Your task to perform on an android device: open app "McDonald's" Image 0: 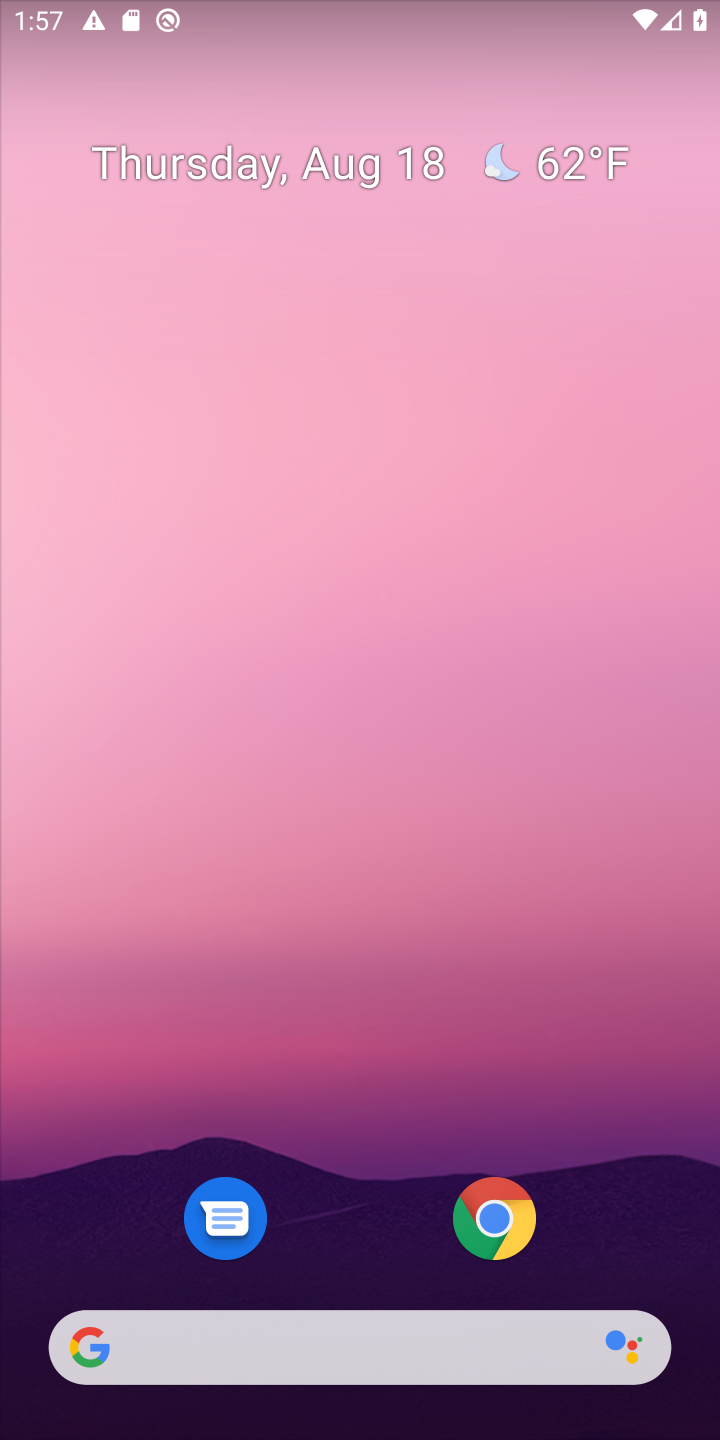
Step 0: drag from (364, 749) to (411, 361)
Your task to perform on an android device: open app "McDonald's" Image 1: 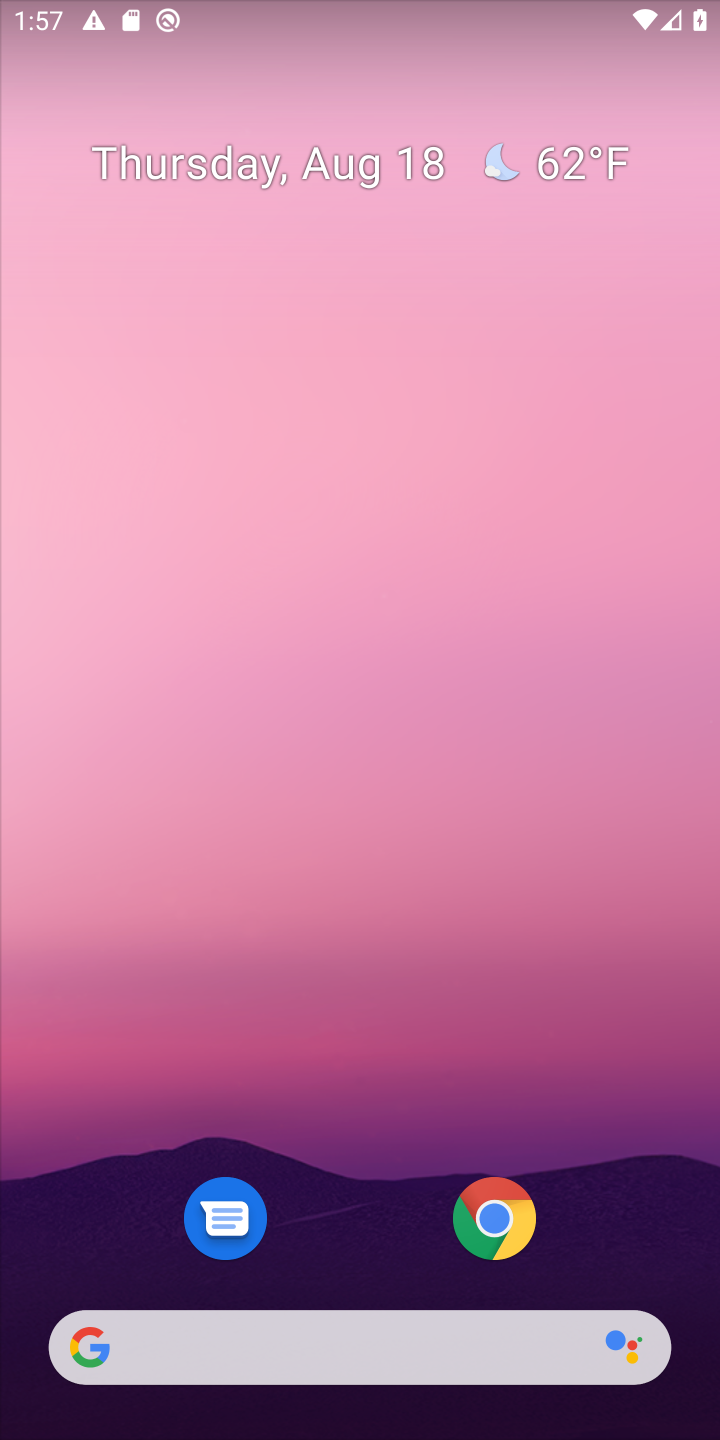
Step 1: drag from (347, 1188) to (377, 295)
Your task to perform on an android device: open app "McDonald's" Image 2: 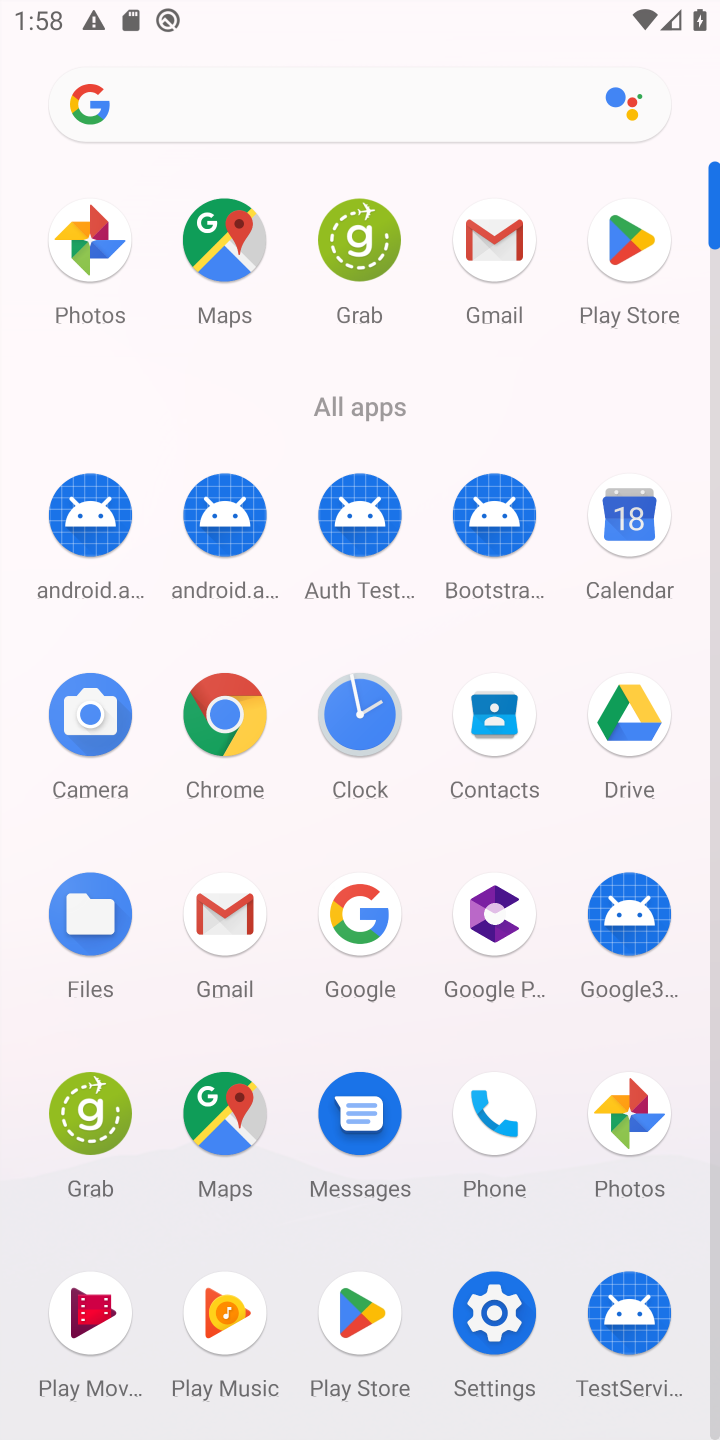
Step 2: click (630, 277)
Your task to perform on an android device: open app "McDonald's" Image 3: 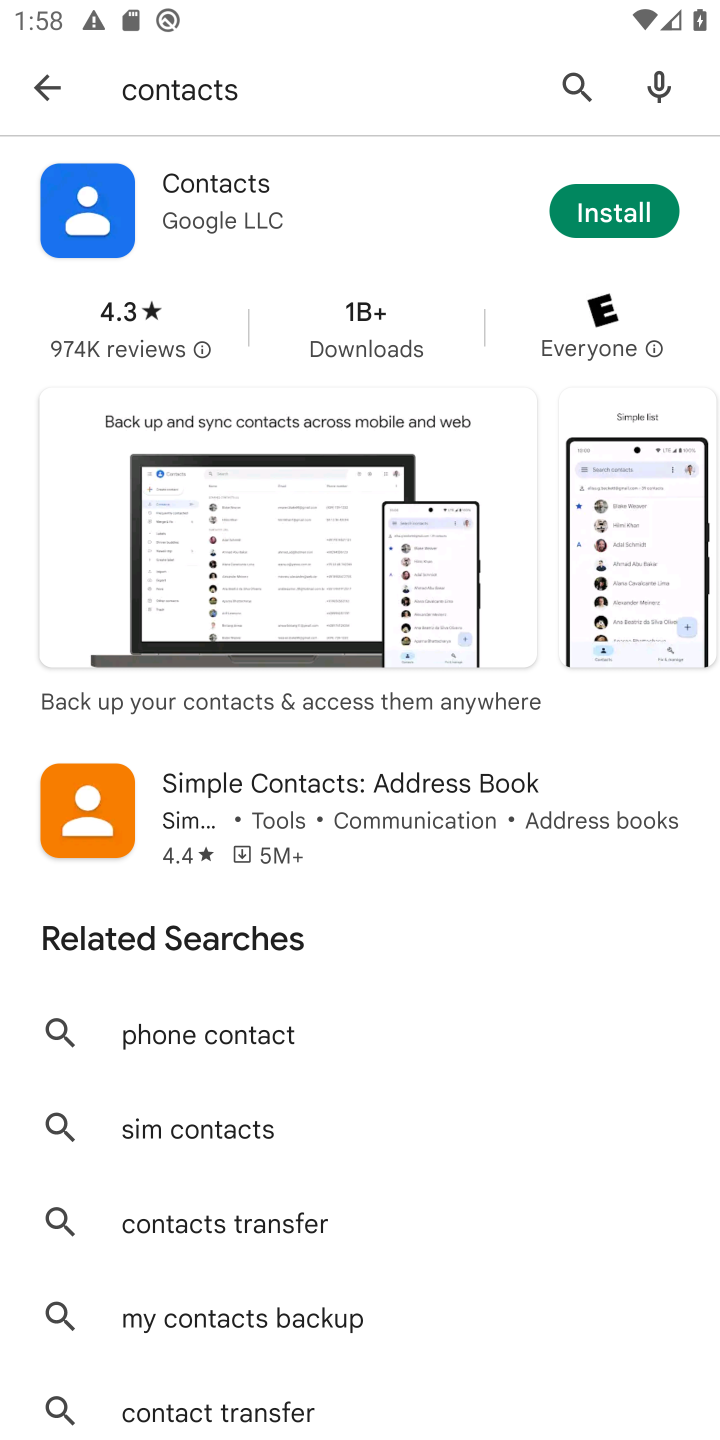
Step 3: click (582, 104)
Your task to perform on an android device: open app "McDonald's" Image 4: 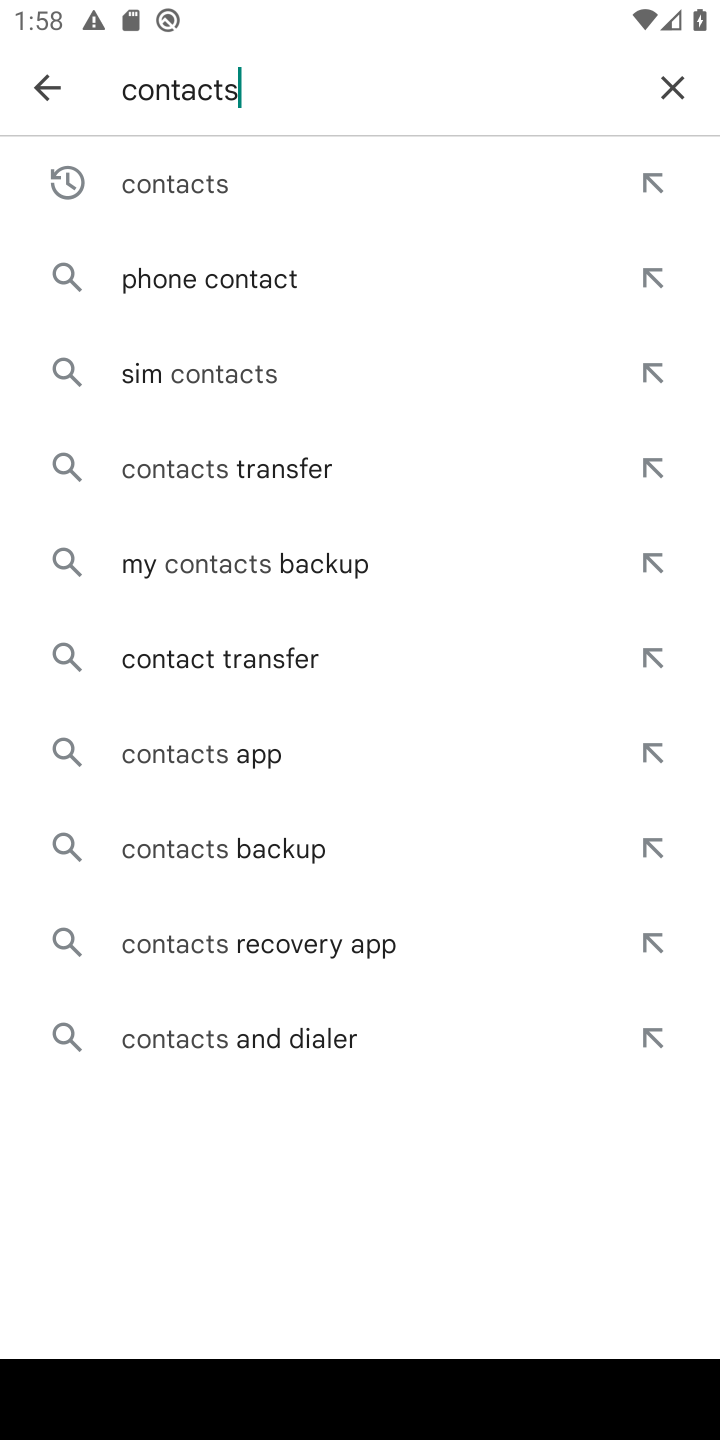
Step 4: click (659, 85)
Your task to perform on an android device: open app "McDonald's" Image 5: 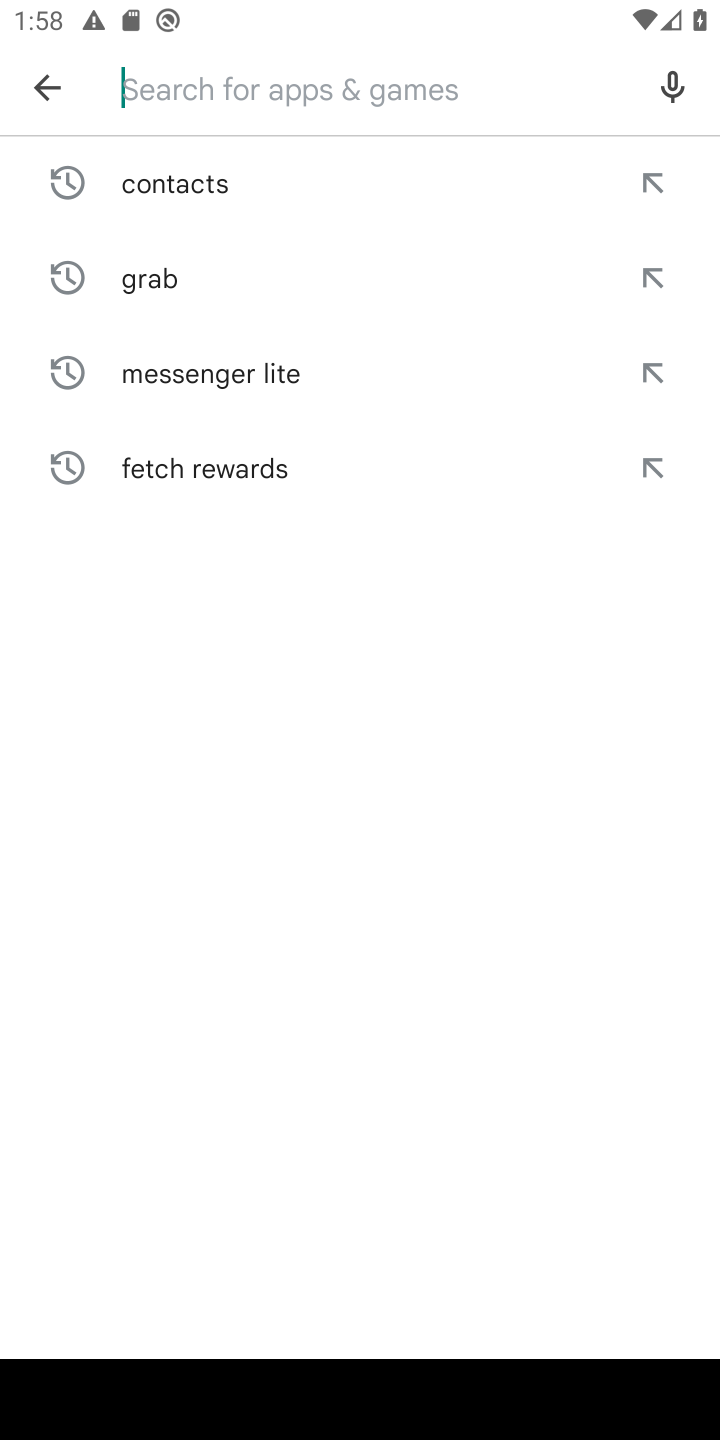
Step 5: type "McDonald's"
Your task to perform on an android device: open app "McDonald's" Image 6: 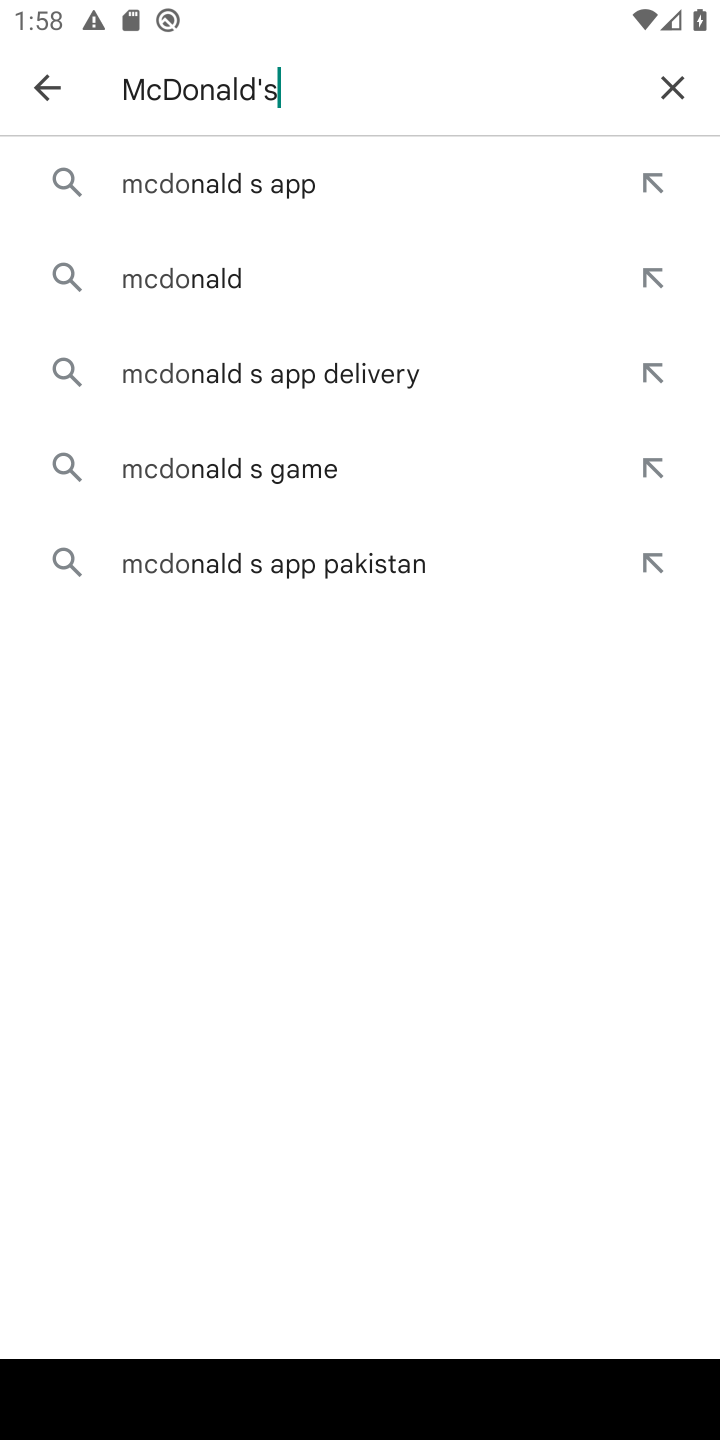
Step 6: type ""
Your task to perform on an android device: open app "McDonald's" Image 7: 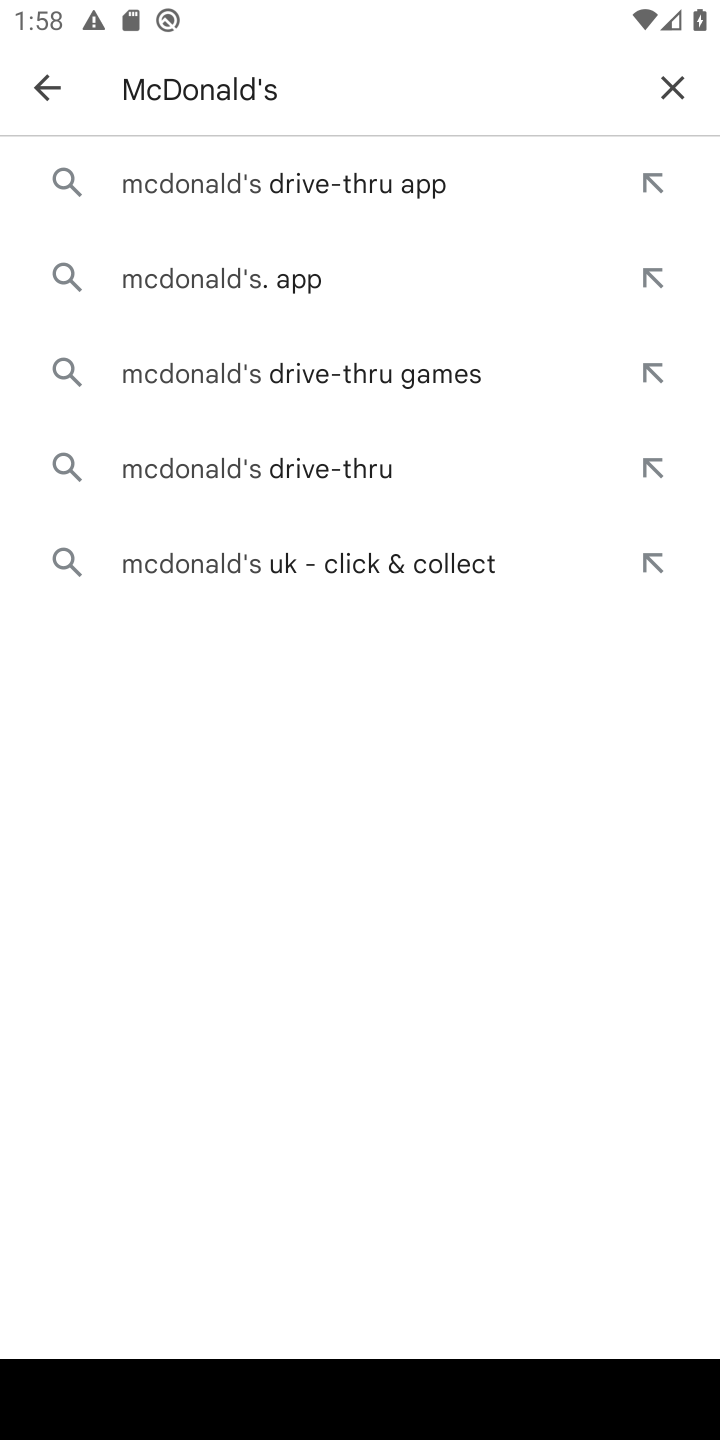
Step 7: click (372, 258)
Your task to perform on an android device: open app "McDonald's" Image 8: 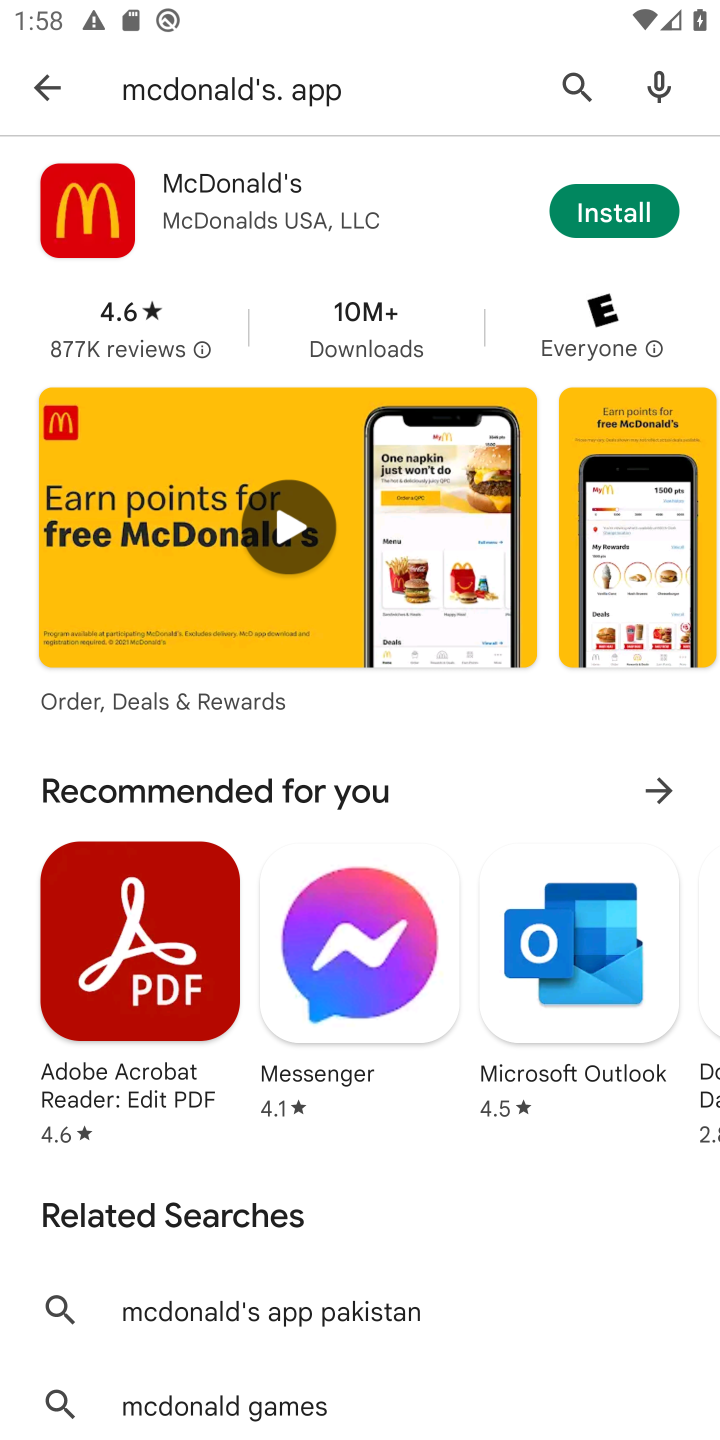
Step 8: task complete